Your task to perform on an android device: Go to ESPN.com Image 0: 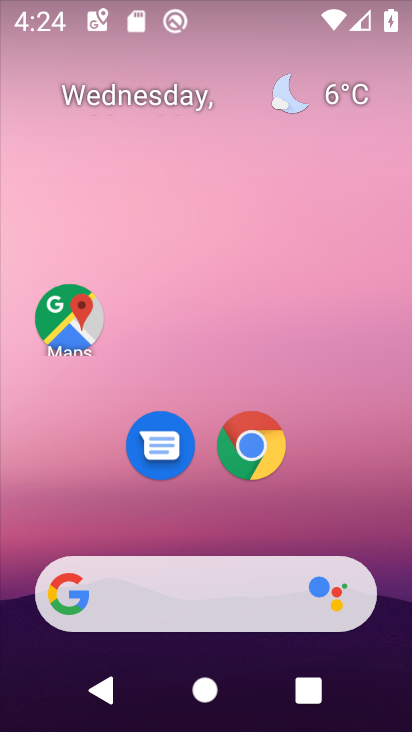
Step 0: click (247, 445)
Your task to perform on an android device: Go to ESPN.com Image 1: 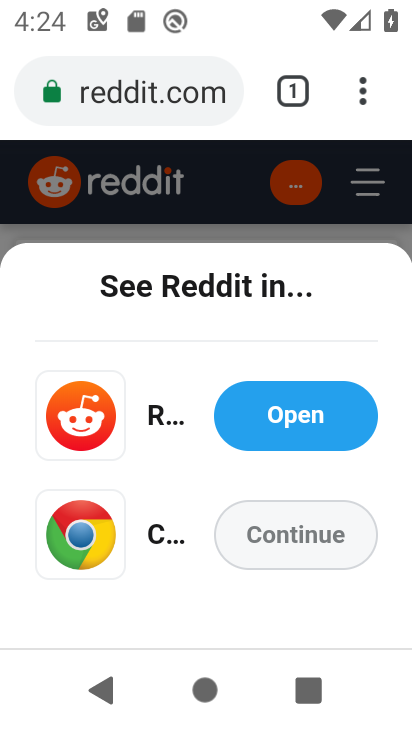
Step 1: click (309, 511)
Your task to perform on an android device: Go to ESPN.com Image 2: 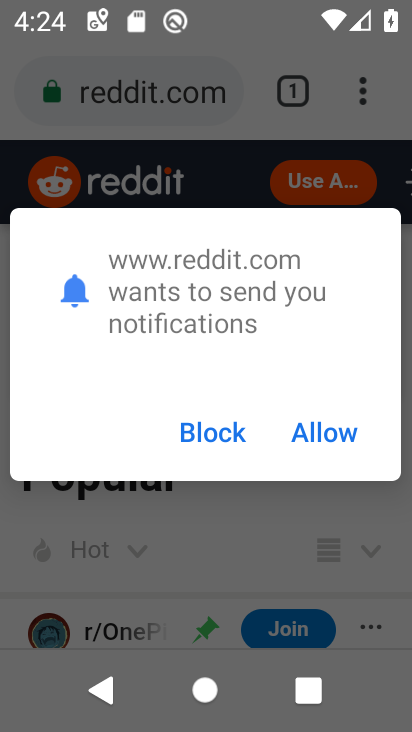
Step 2: click (151, 109)
Your task to perform on an android device: Go to ESPN.com Image 3: 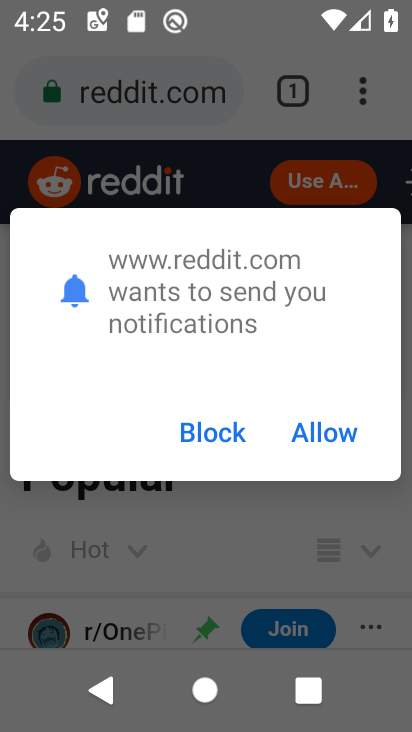
Step 3: click (203, 445)
Your task to perform on an android device: Go to ESPN.com Image 4: 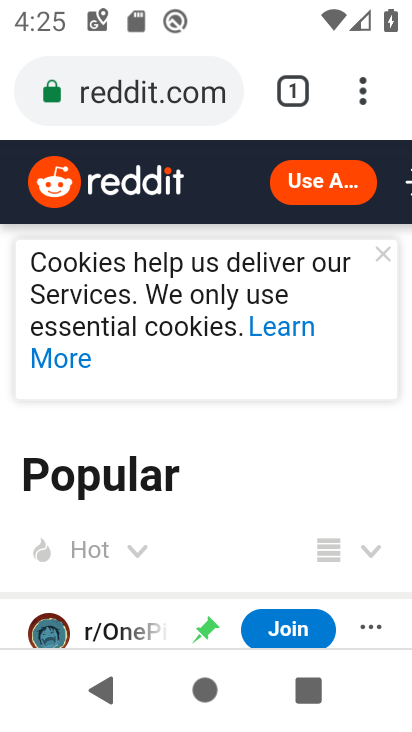
Step 4: click (172, 66)
Your task to perform on an android device: Go to ESPN.com Image 5: 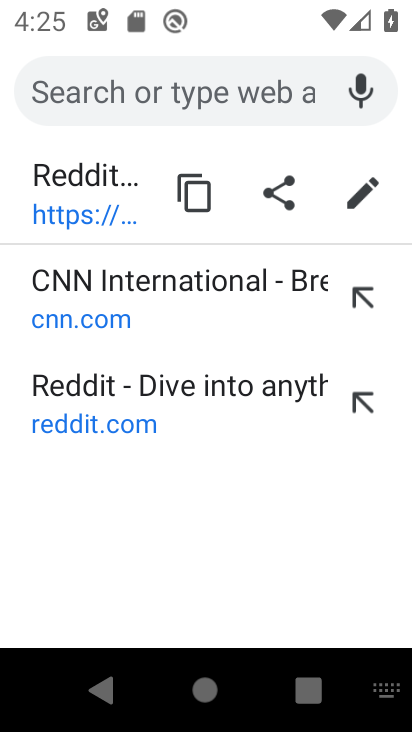
Step 5: type "ESPN.com"
Your task to perform on an android device: Go to ESPN.com Image 6: 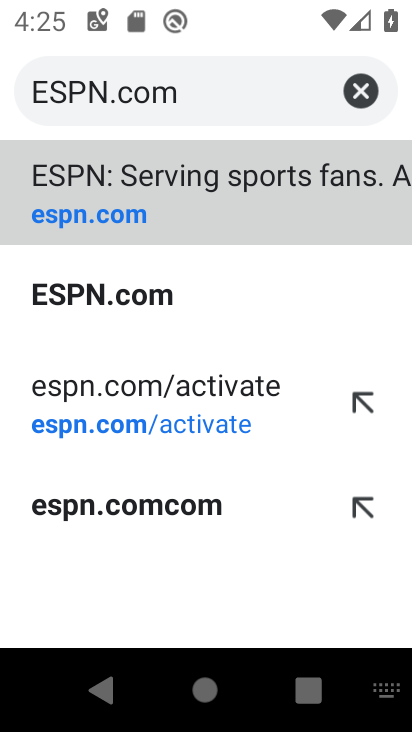
Step 6: click (159, 301)
Your task to perform on an android device: Go to ESPN.com Image 7: 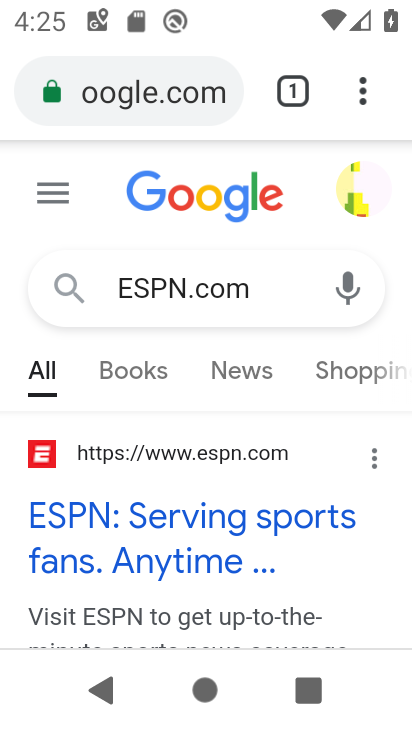
Step 7: task complete